Your task to perform on an android device: turn on sleep mode Image 0: 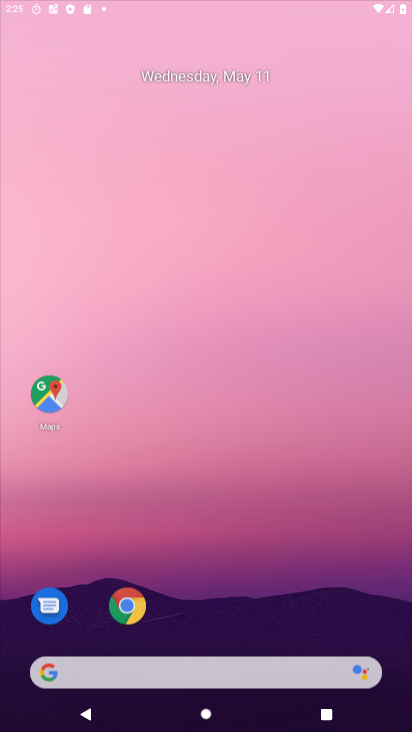
Step 0: click (350, 235)
Your task to perform on an android device: turn on sleep mode Image 1: 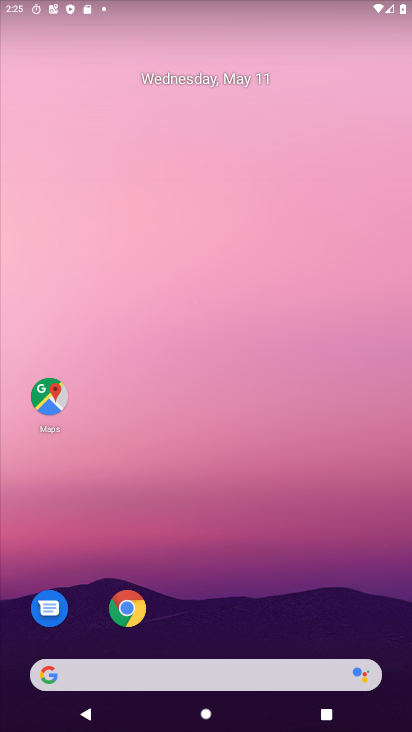
Step 1: drag from (207, 624) to (204, 258)
Your task to perform on an android device: turn on sleep mode Image 2: 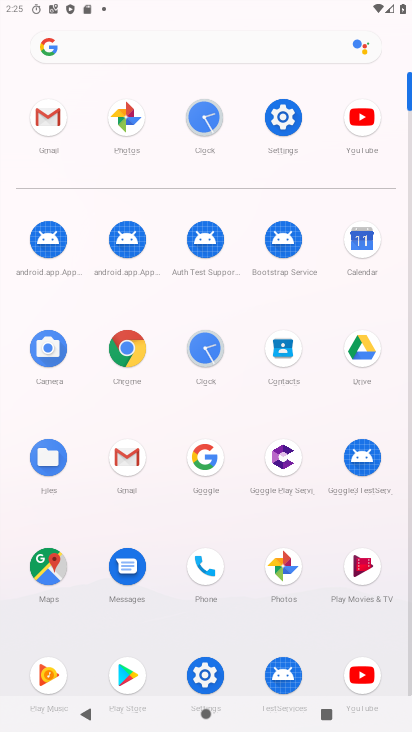
Step 2: click (285, 120)
Your task to perform on an android device: turn on sleep mode Image 3: 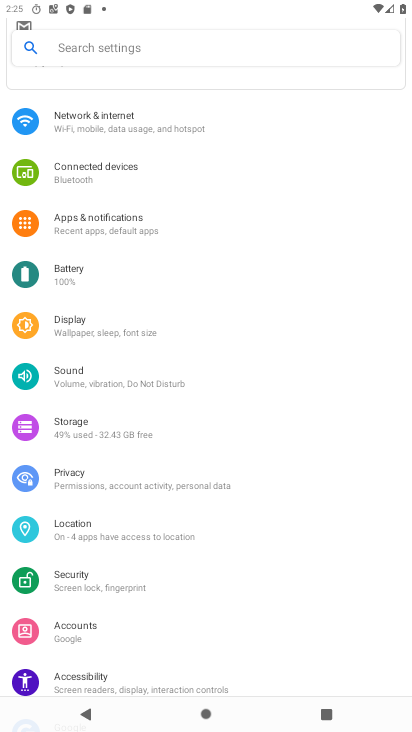
Step 3: click (86, 309)
Your task to perform on an android device: turn on sleep mode Image 4: 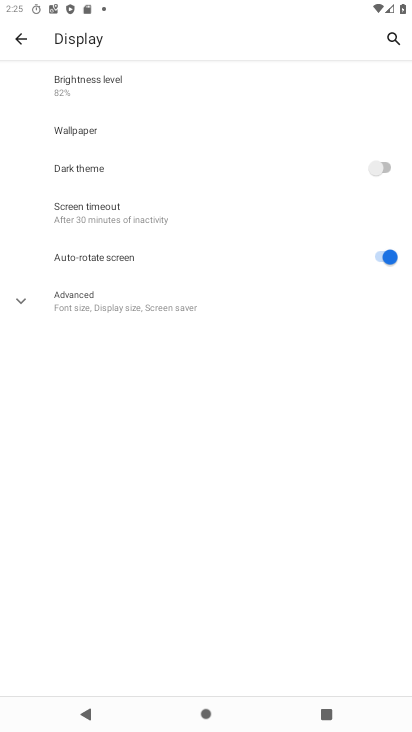
Step 4: click (124, 304)
Your task to perform on an android device: turn on sleep mode Image 5: 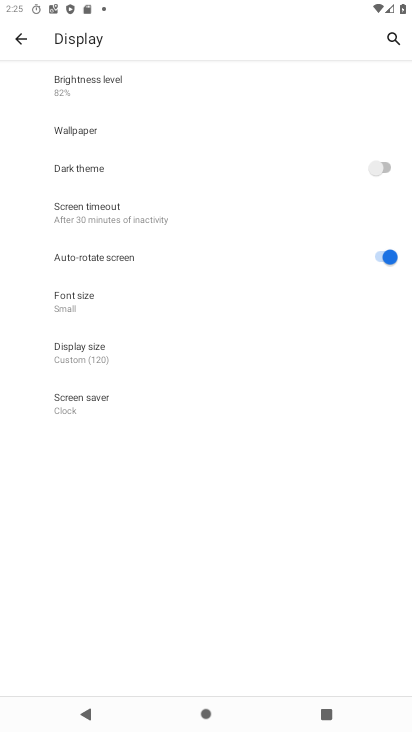
Step 5: task complete